Your task to perform on an android device: Go to Reddit.com Image 0: 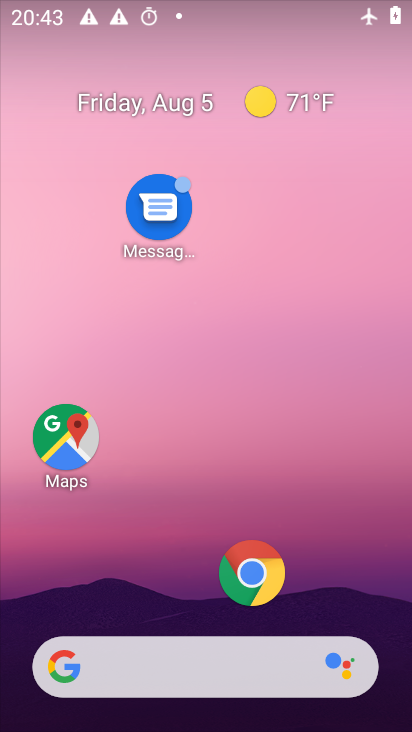
Step 0: press home button
Your task to perform on an android device: Go to Reddit.com Image 1: 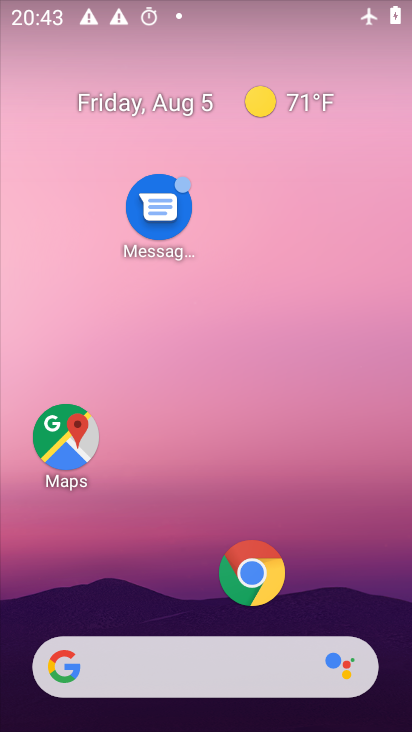
Step 1: drag from (197, 609) to (237, 28)
Your task to perform on an android device: Go to Reddit.com Image 2: 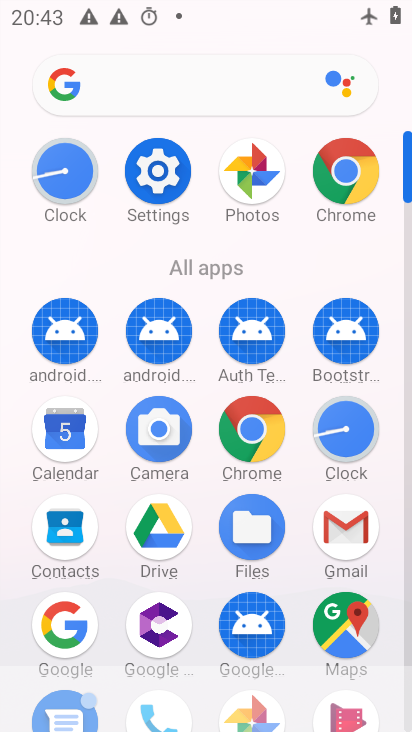
Step 2: click (248, 420)
Your task to perform on an android device: Go to Reddit.com Image 3: 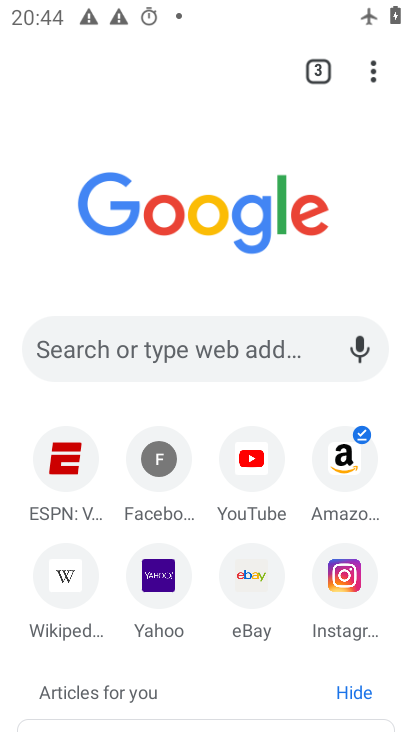
Step 3: click (152, 350)
Your task to perform on an android device: Go to Reddit.com Image 4: 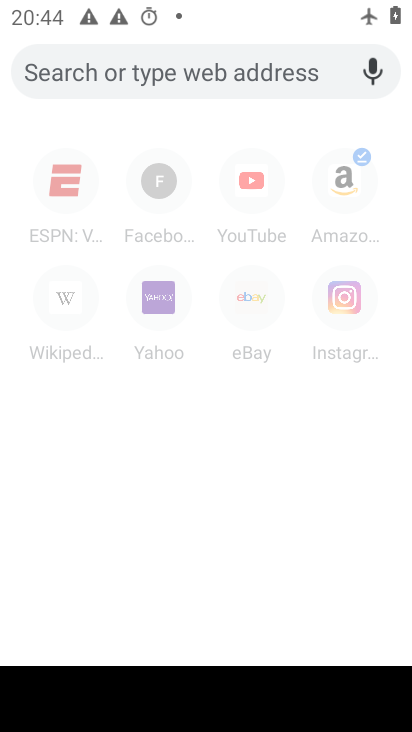
Step 4: type "reddit.com"
Your task to perform on an android device: Go to Reddit.com Image 5: 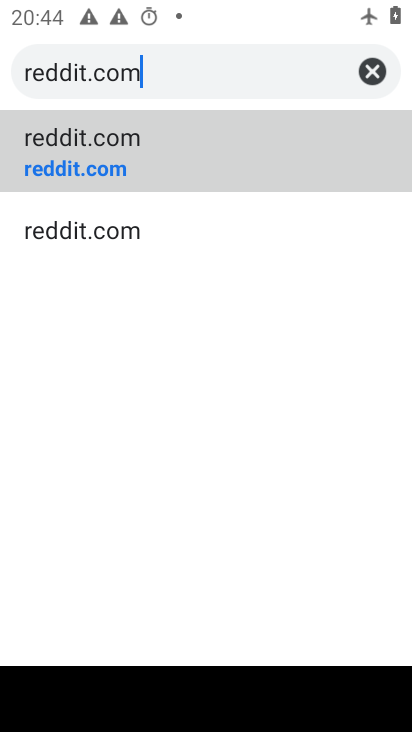
Step 5: click (144, 156)
Your task to perform on an android device: Go to Reddit.com Image 6: 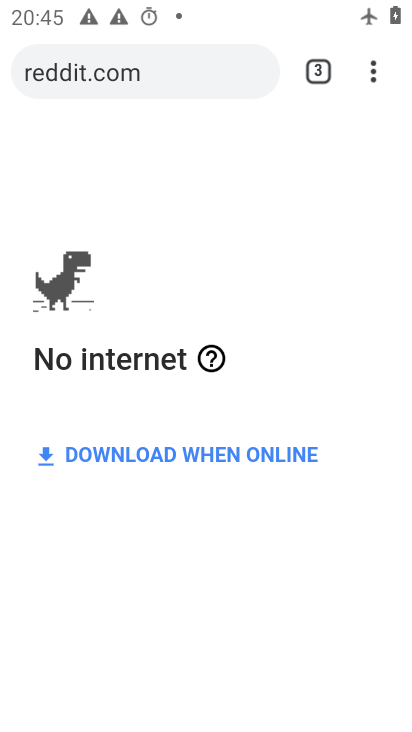
Step 6: task complete